Your task to perform on an android device: Go to Google maps Image 0: 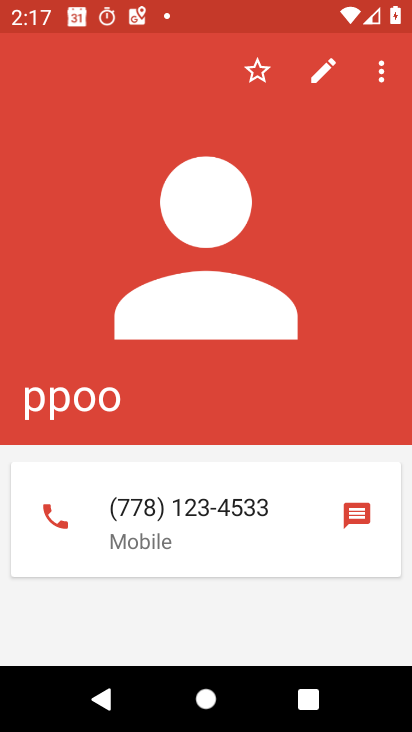
Step 0: press home button
Your task to perform on an android device: Go to Google maps Image 1: 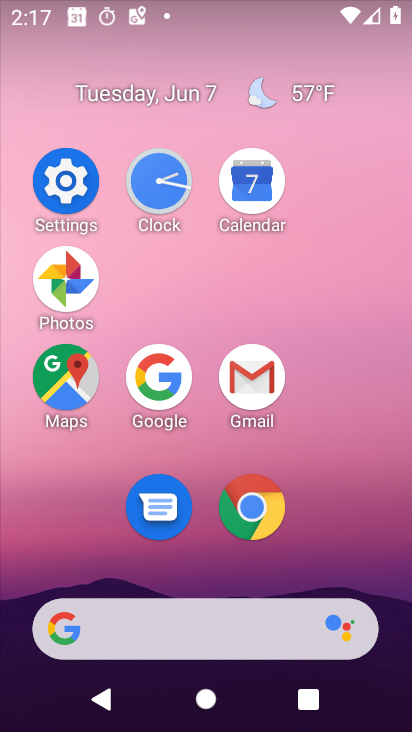
Step 1: click (78, 369)
Your task to perform on an android device: Go to Google maps Image 2: 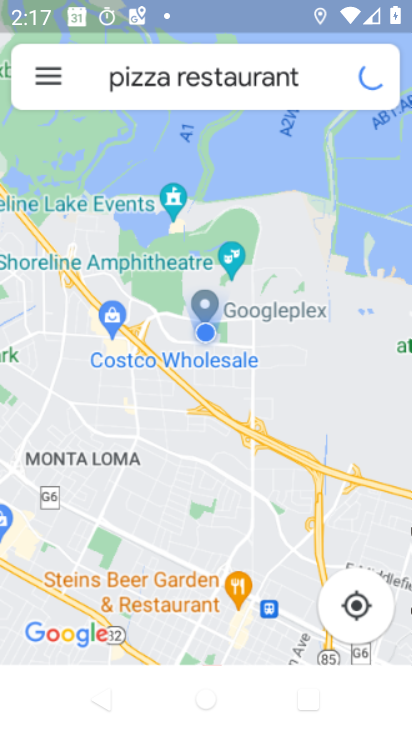
Step 2: task complete